Your task to perform on an android device: open chrome privacy settings Image 0: 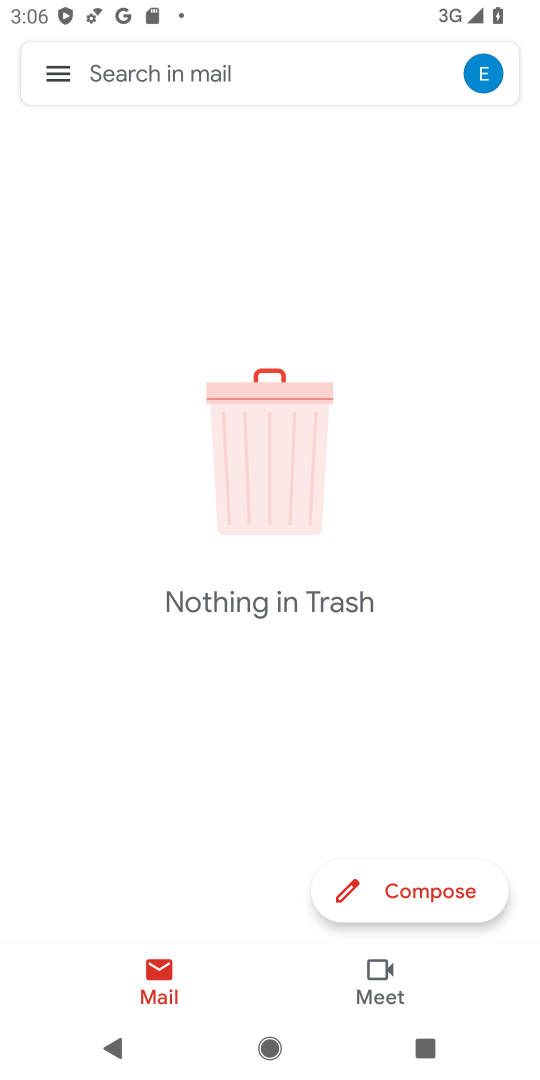
Step 0: press back button
Your task to perform on an android device: open chrome privacy settings Image 1: 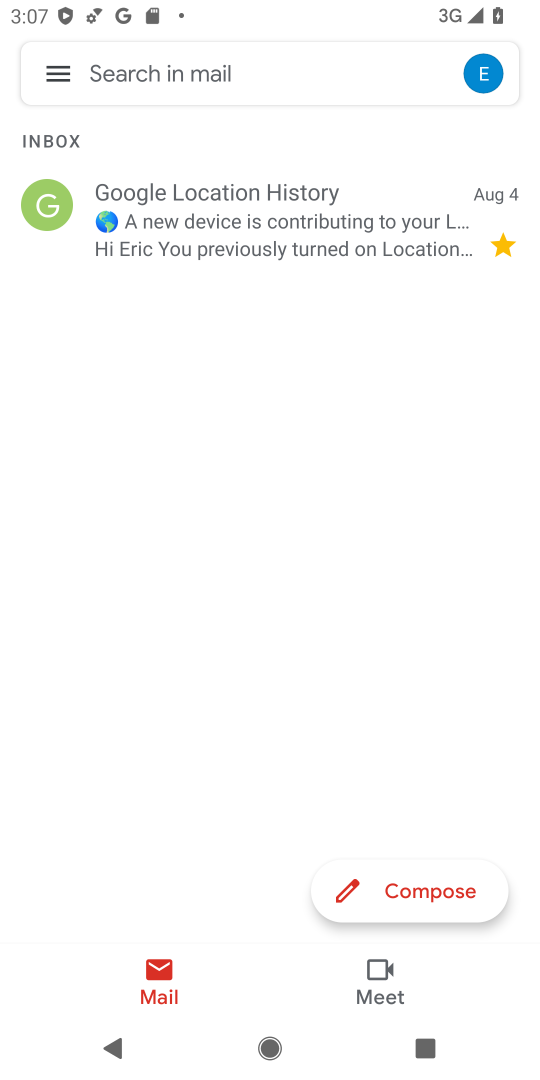
Step 1: press back button
Your task to perform on an android device: open chrome privacy settings Image 2: 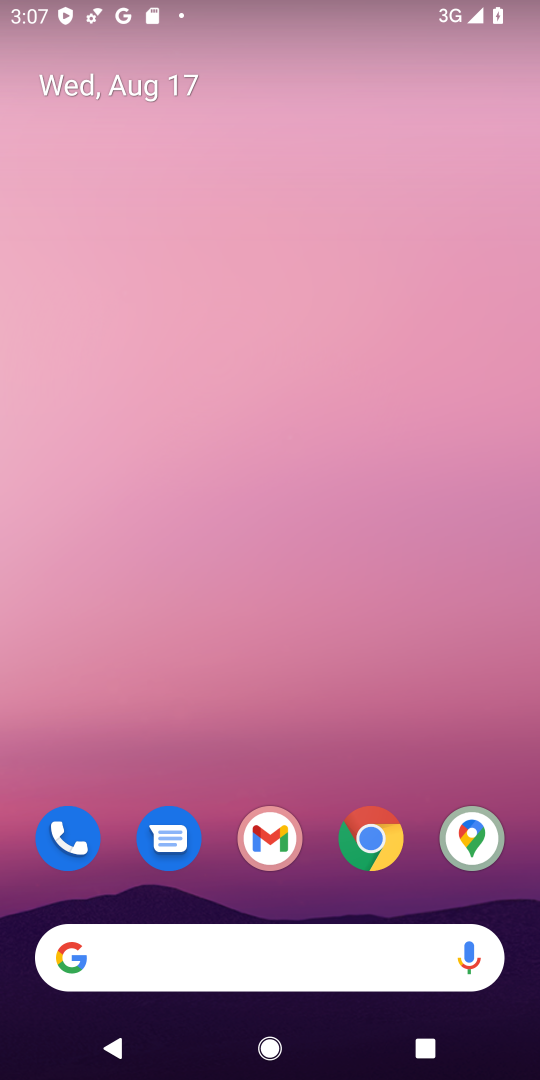
Step 2: click (367, 852)
Your task to perform on an android device: open chrome privacy settings Image 3: 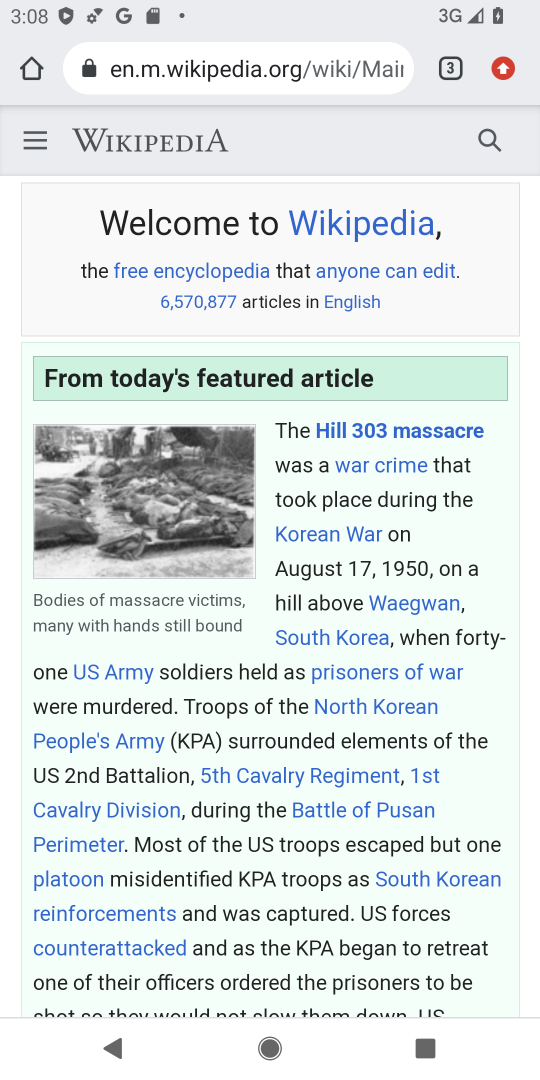
Step 3: press back button
Your task to perform on an android device: open chrome privacy settings Image 4: 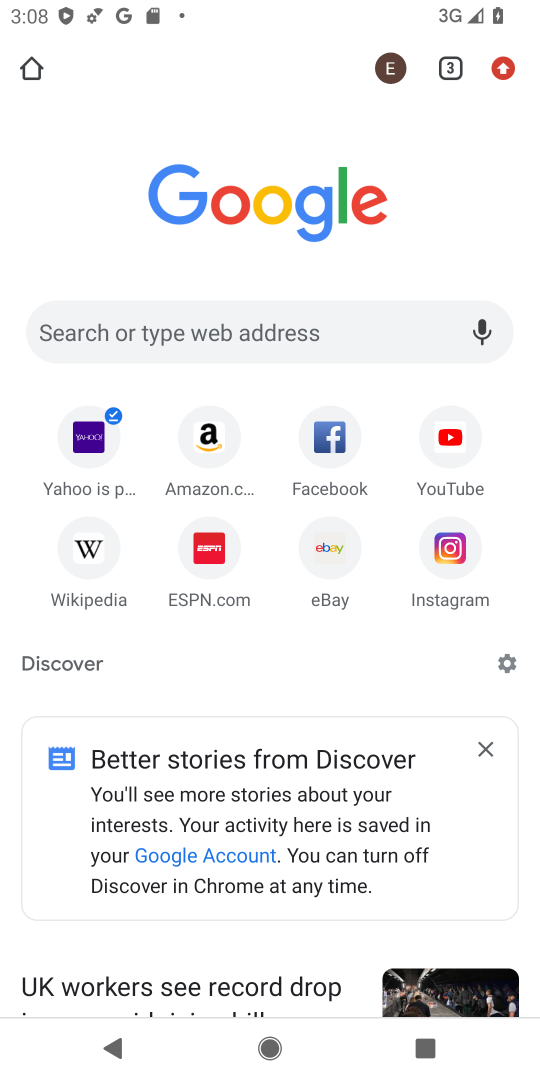
Step 4: drag from (506, 72) to (316, 703)
Your task to perform on an android device: open chrome privacy settings Image 5: 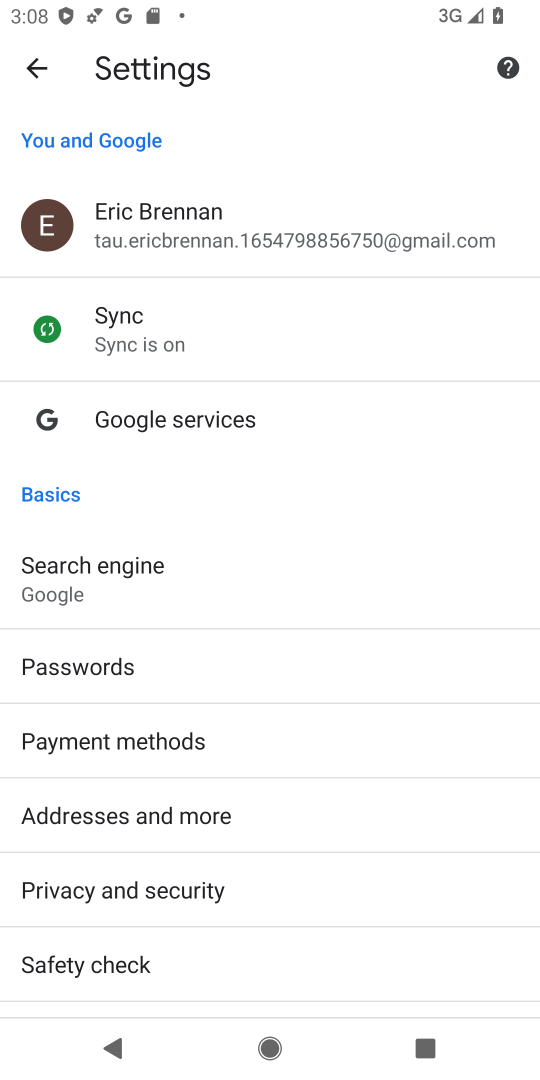
Step 5: drag from (149, 918) to (310, 258)
Your task to perform on an android device: open chrome privacy settings Image 6: 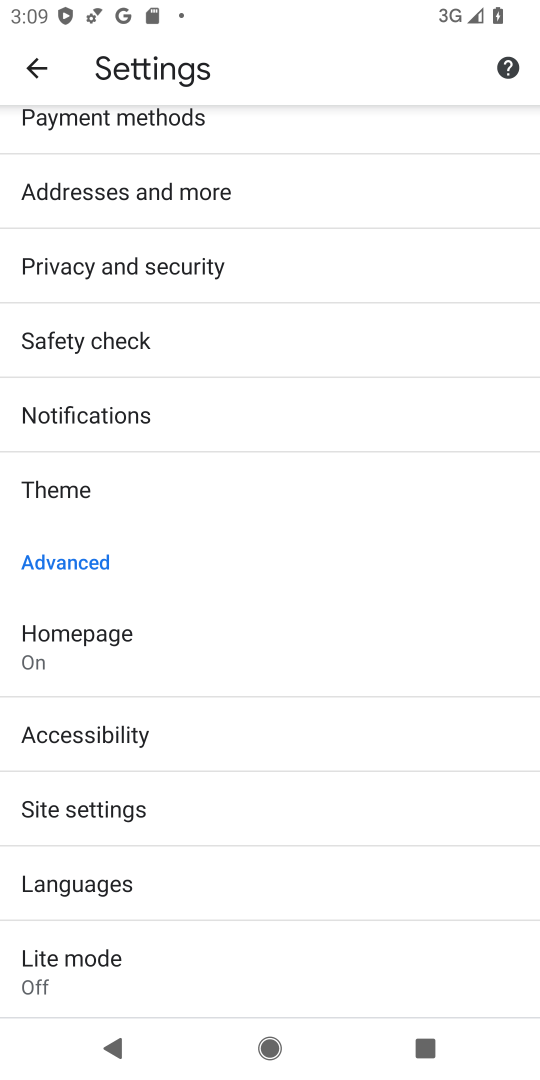
Step 6: drag from (134, 922) to (205, 997)
Your task to perform on an android device: open chrome privacy settings Image 7: 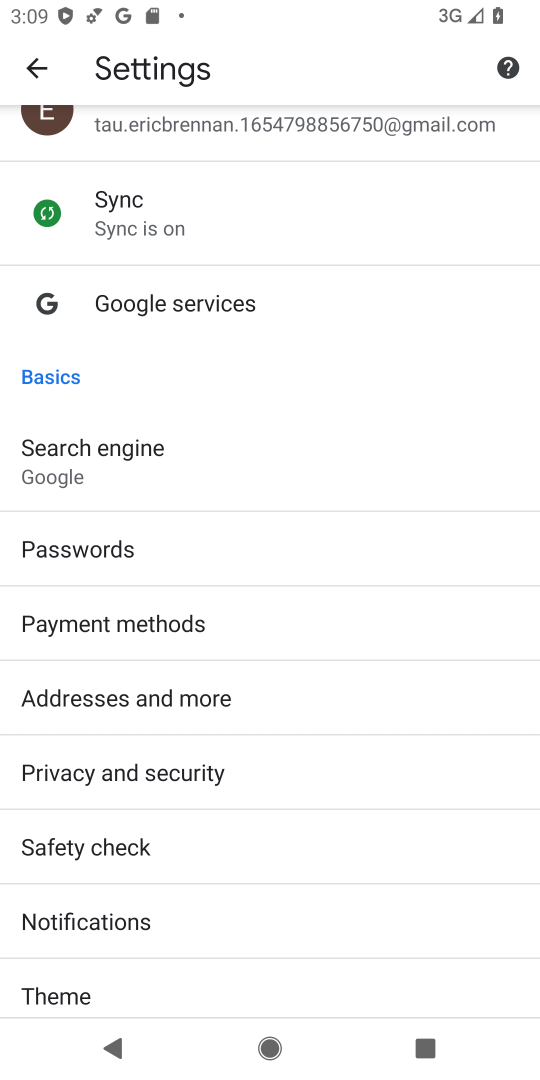
Step 7: click (132, 769)
Your task to perform on an android device: open chrome privacy settings Image 8: 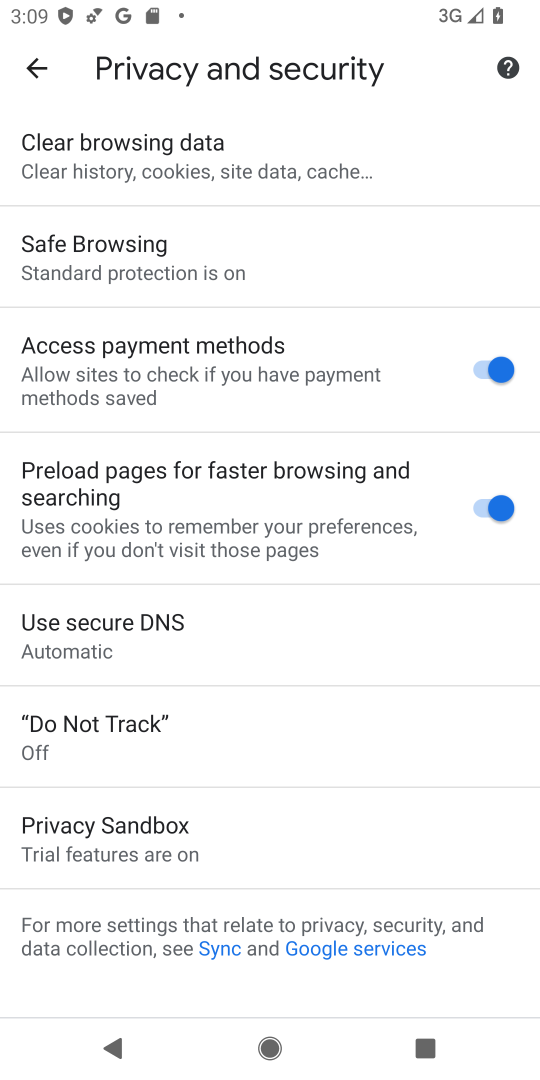
Step 8: task complete